Your task to perform on an android device: Open notification settings Image 0: 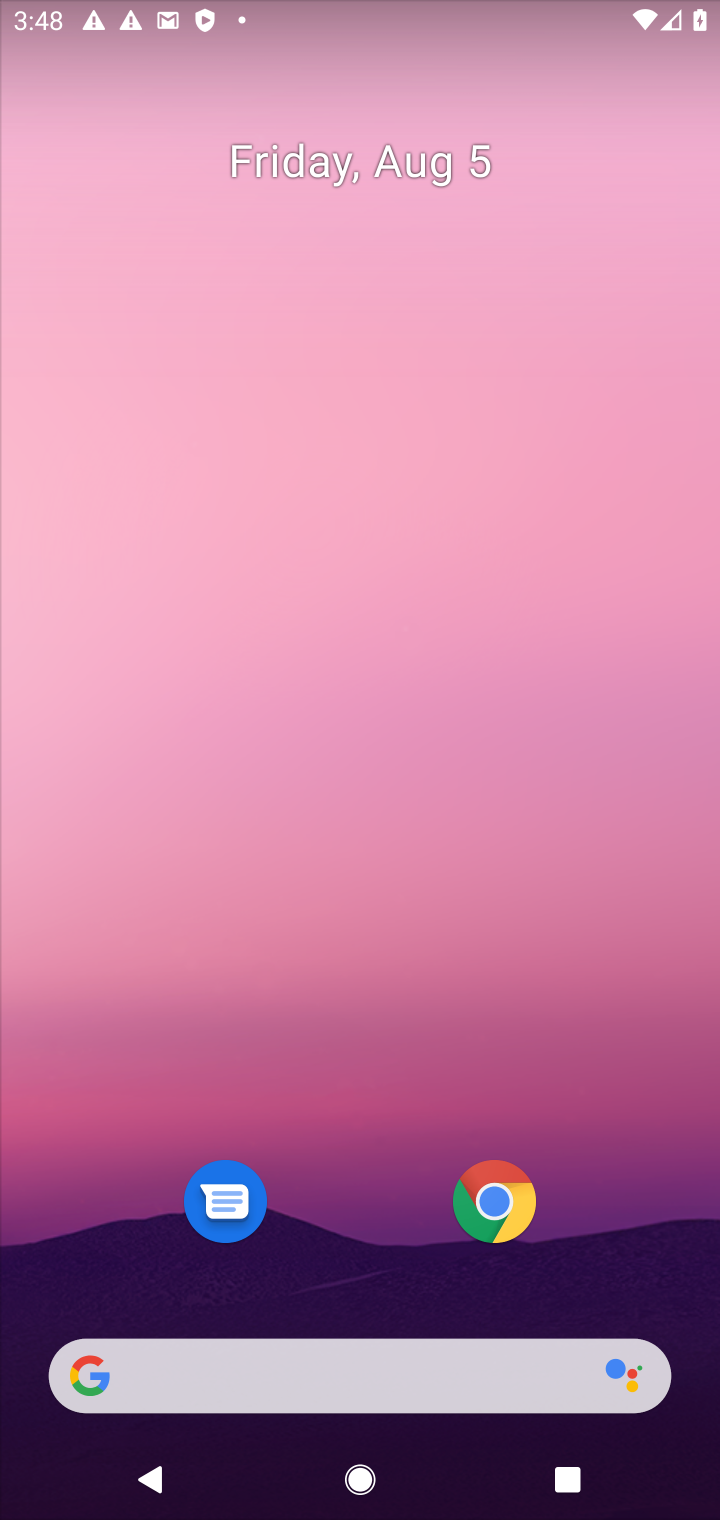
Step 0: drag from (665, 1278) to (493, 192)
Your task to perform on an android device: Open notification settings Image 1: 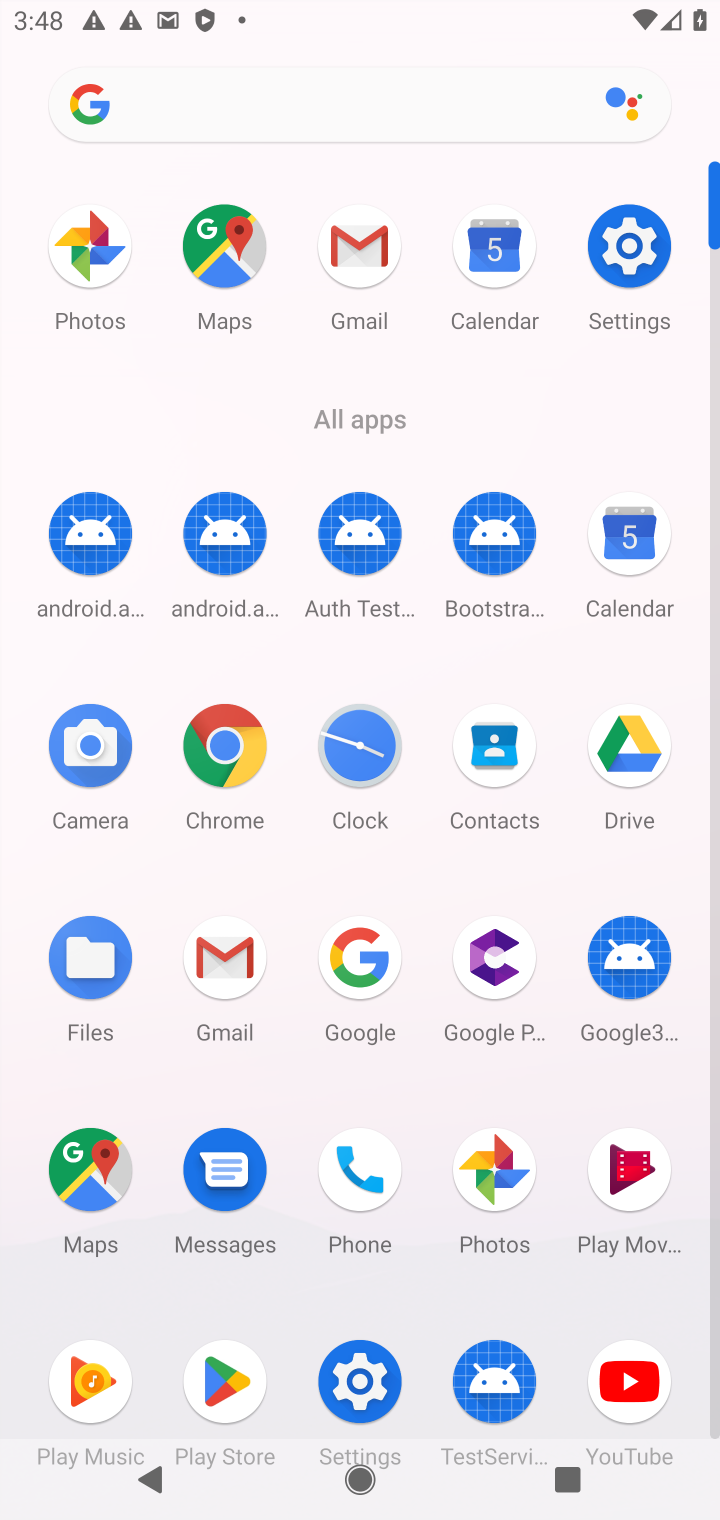
Step 1: click (628, 259)
Your task to perform on an android device: Open notification settings Image 2: 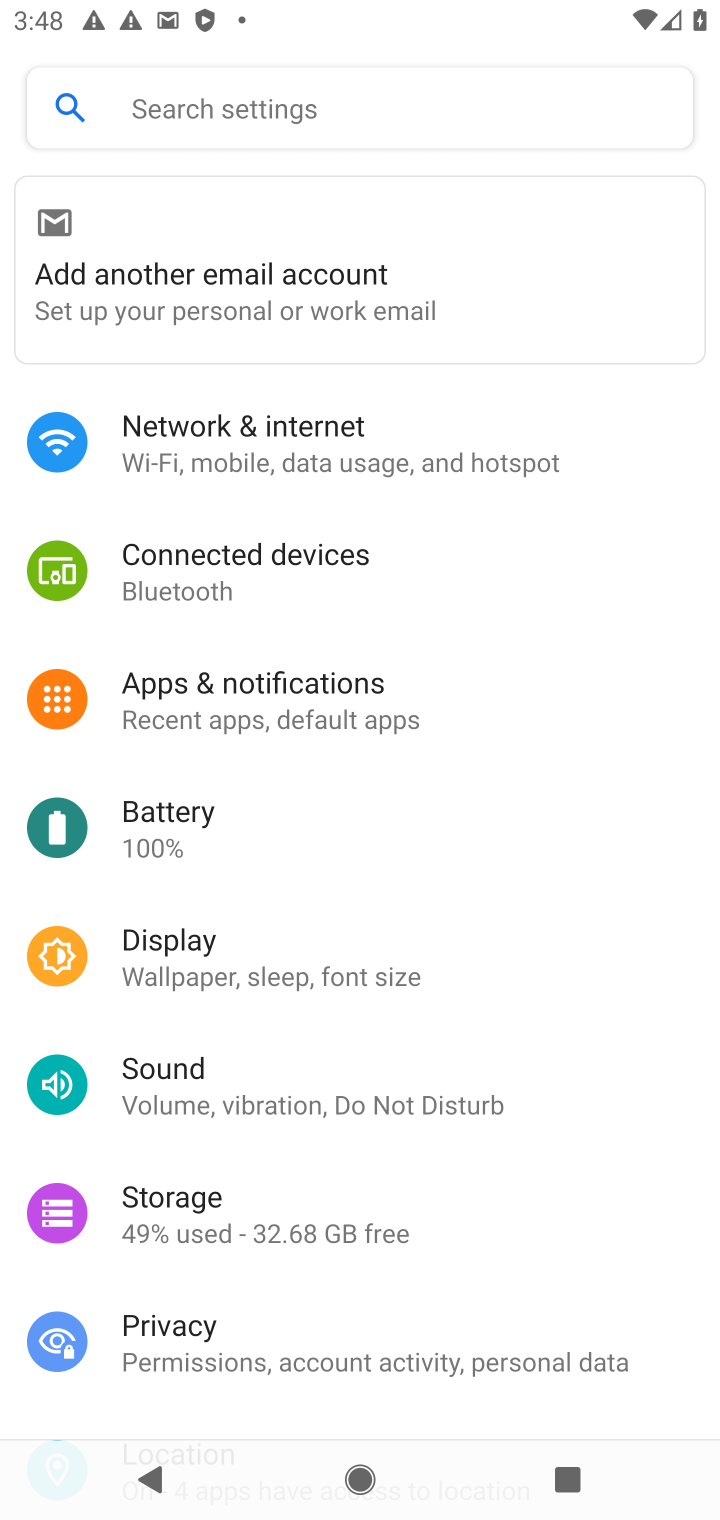
Step 2: click (392, 695)
Your task to perform on an android device: Open notification settings Image 3: 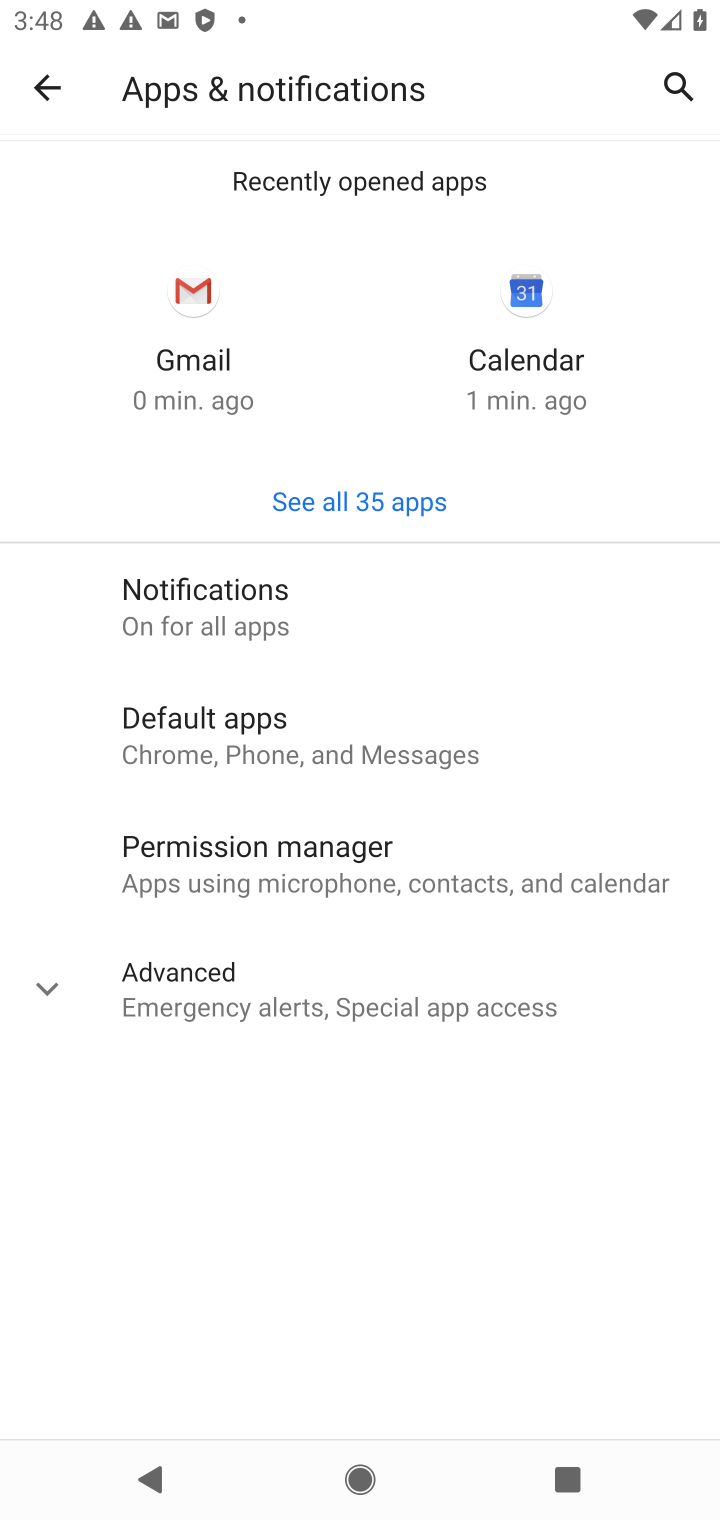
Step 3: click (326, 634)
Your task to perform on an android device: Open notification settings Image 4: 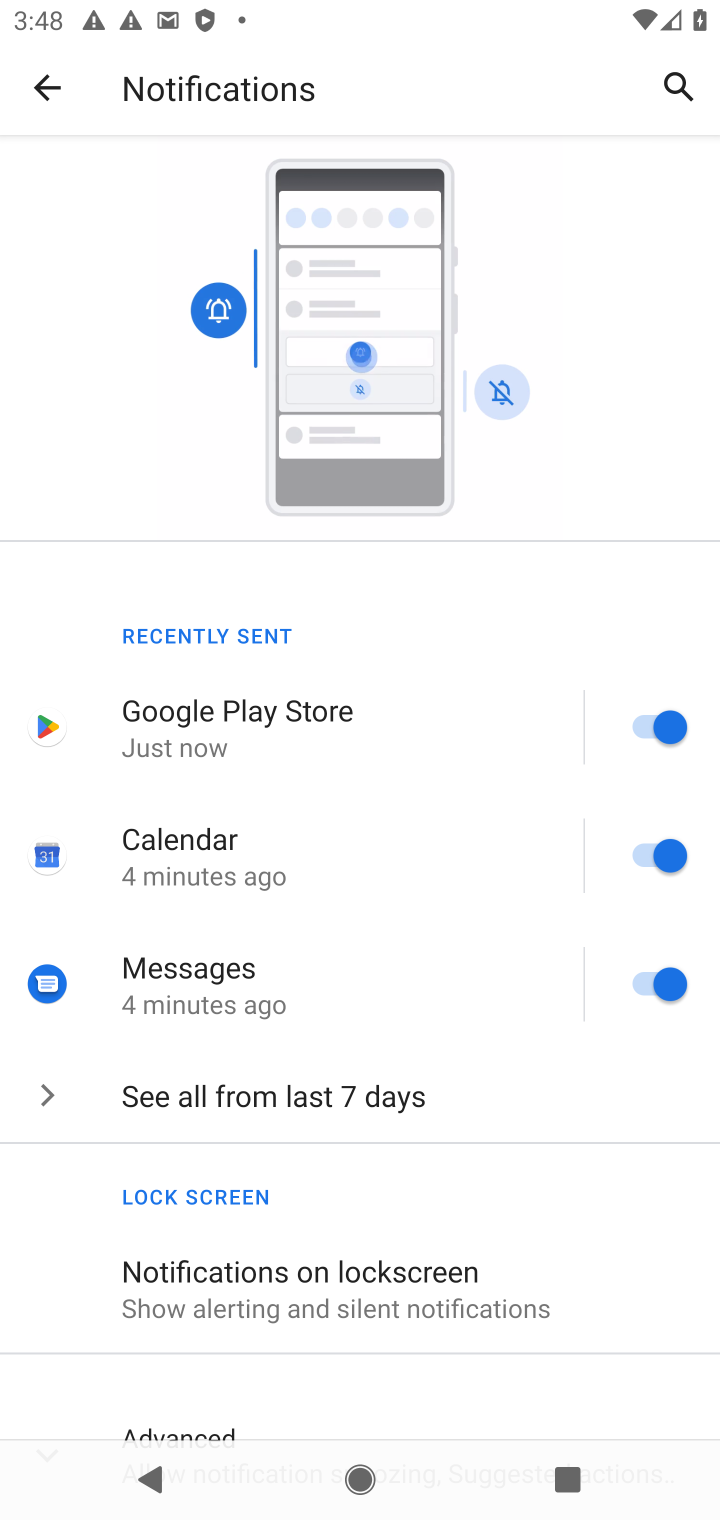
Step 4: task complete